Your task to perform on an android device: check android version Image 0: 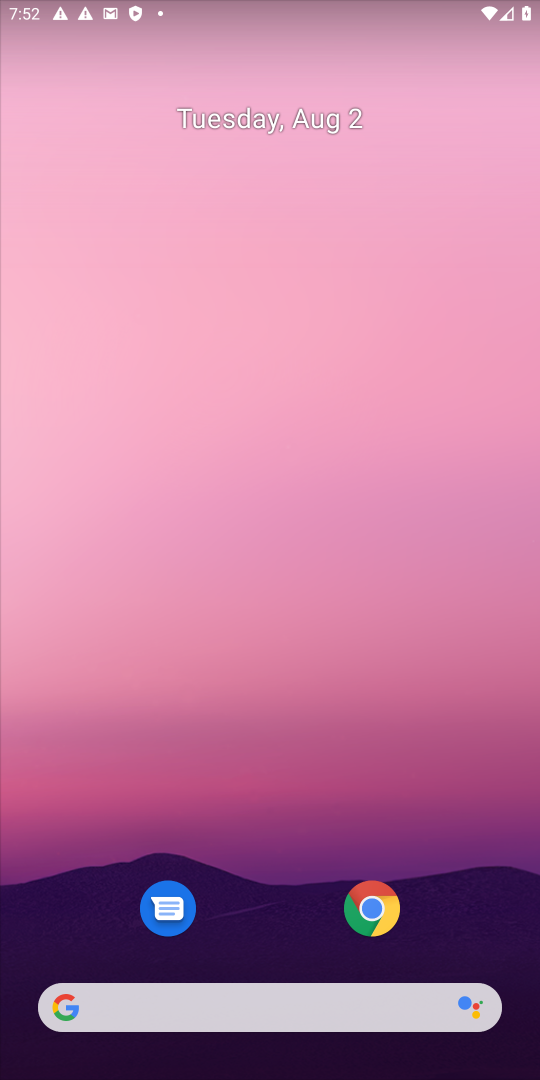
Step 0: drag from (272, 198) to (317, 5)
Your task to perform on an android device: check android version Image 1: 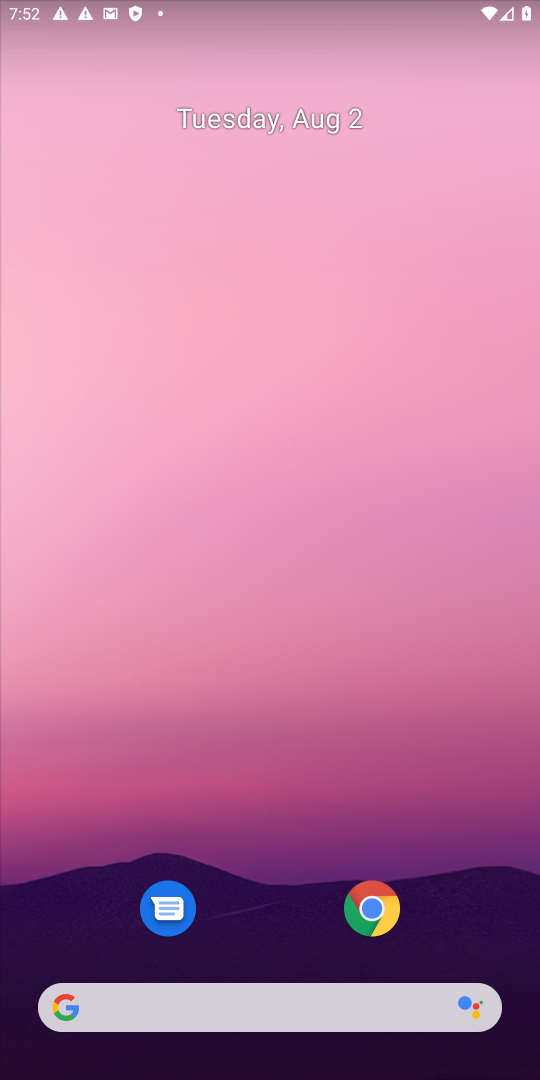
Step 1: drag from (187, 1058) to (332, 107)
Your task to perform on an android device: check android version Image 2: 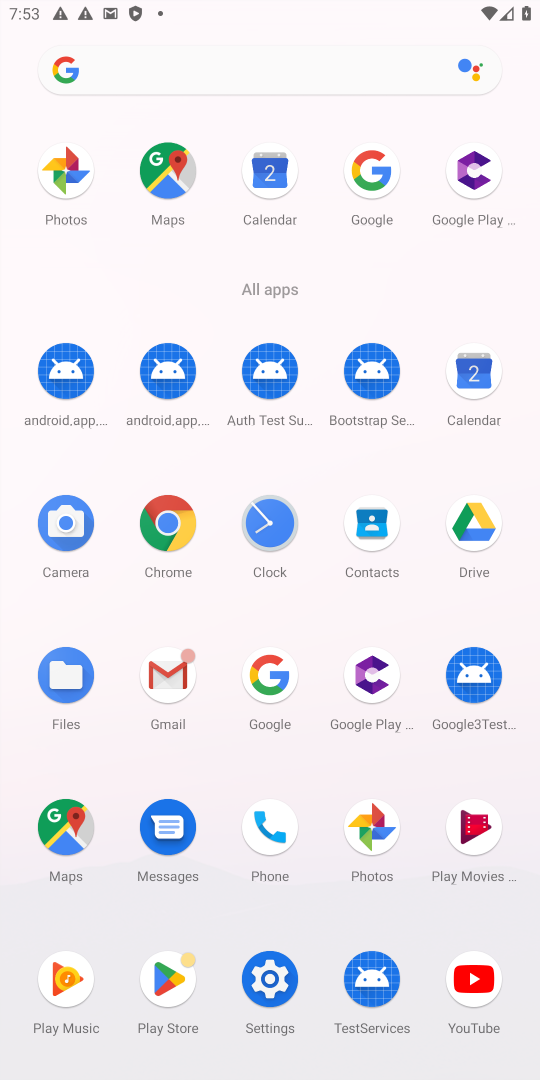
Step 2: click (268, 978)
Your task to perform on an android device: check android version Image 3: 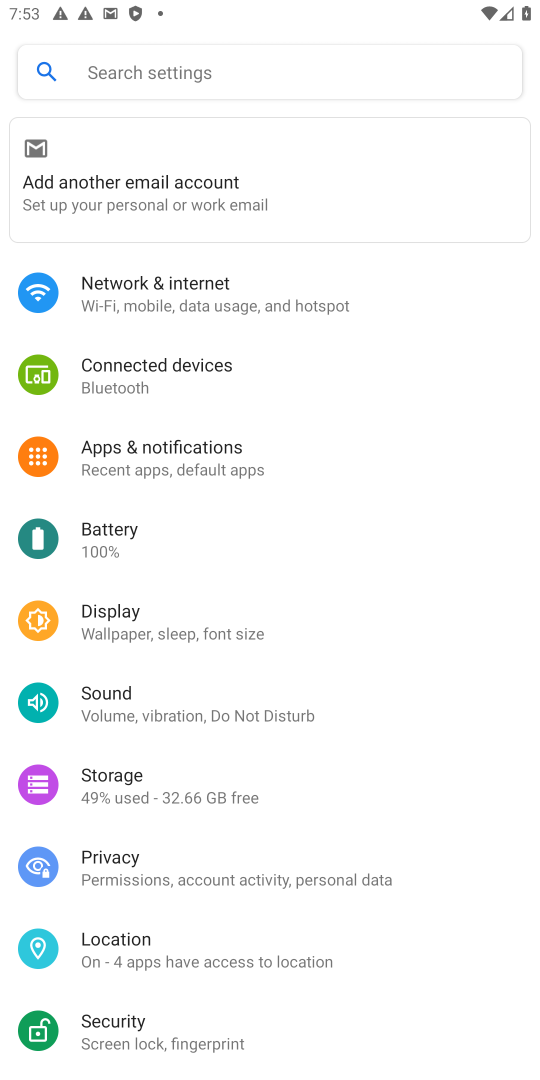
Step 3: drag from (343, 1017) to (477, 115)
Your task to perform on an android device: check android version Image 4: 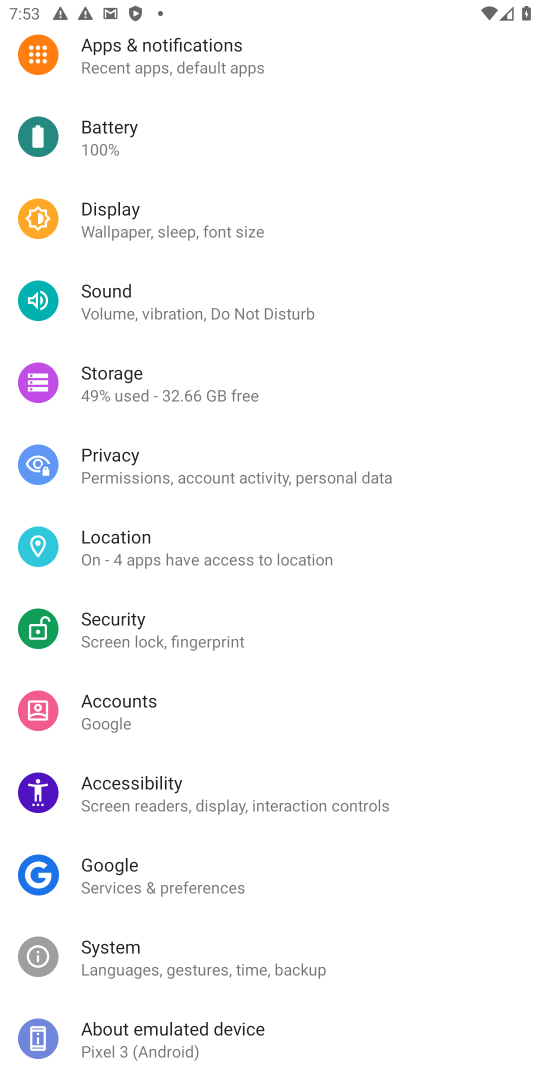
Step 4: drag from (432, 951) to (409, 153)
Your task to perform on an android device: check android version Image 5: 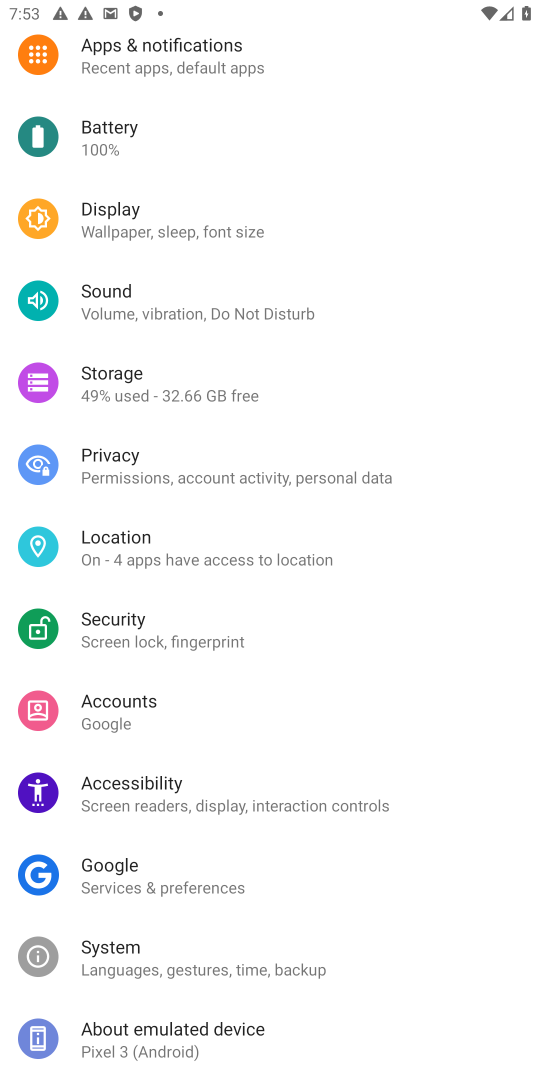
Step 5: click (268, 1011)
Your task to perform on an android device: check android version Image 6: 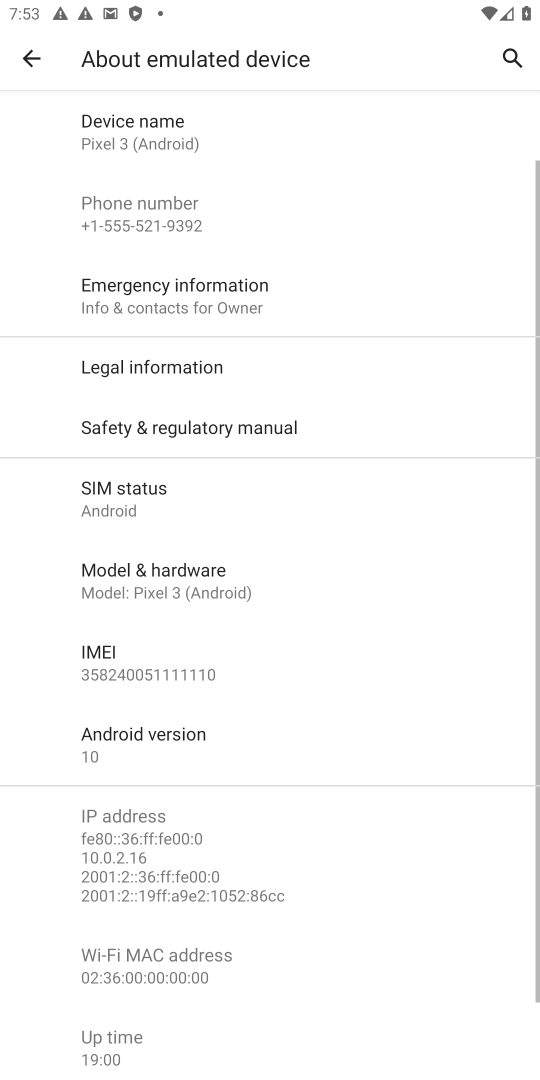
Step 6: task complete